Your task to perform on an android device: open app "Flipkart Online Shopping App" Image 0: 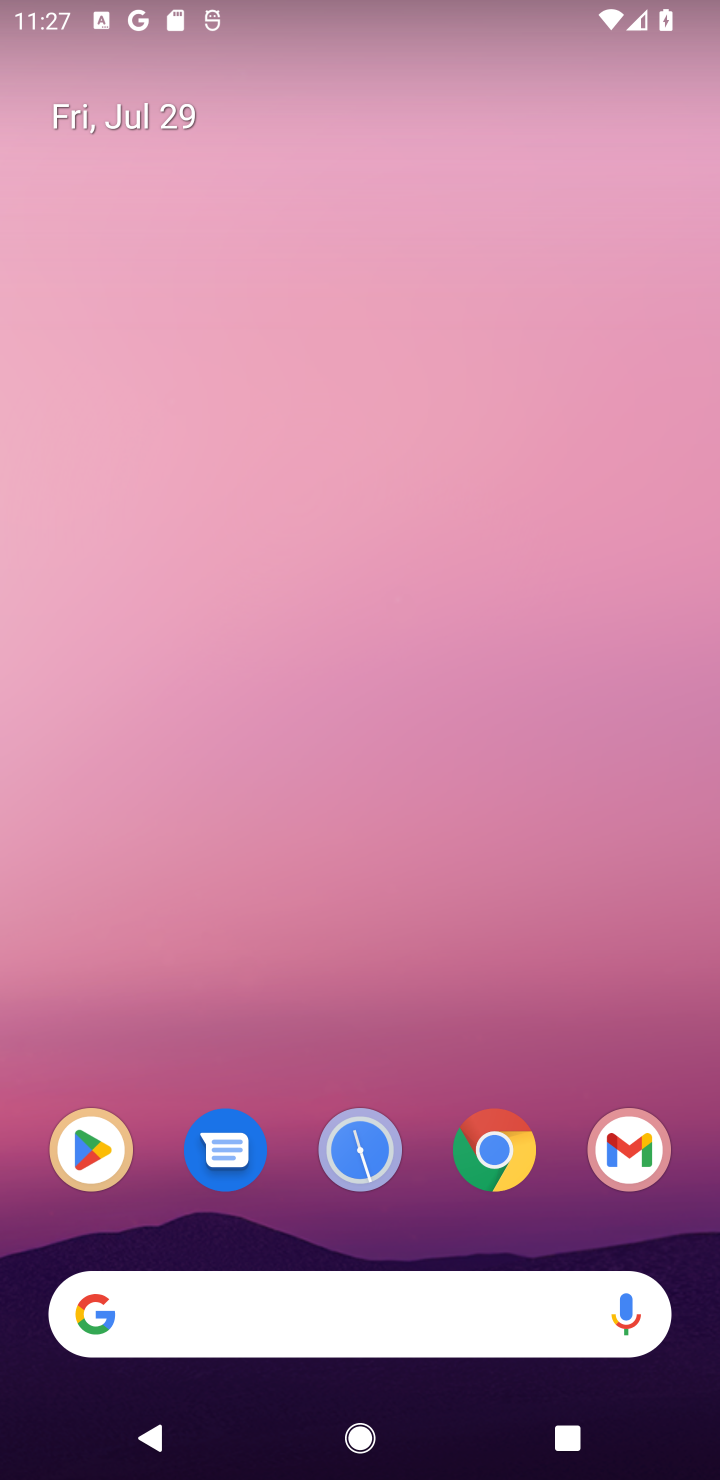
Step 0: click (112, 1133)
Your task to perform on an android device: open app "Flipkart Online Shopping App" Image 1: 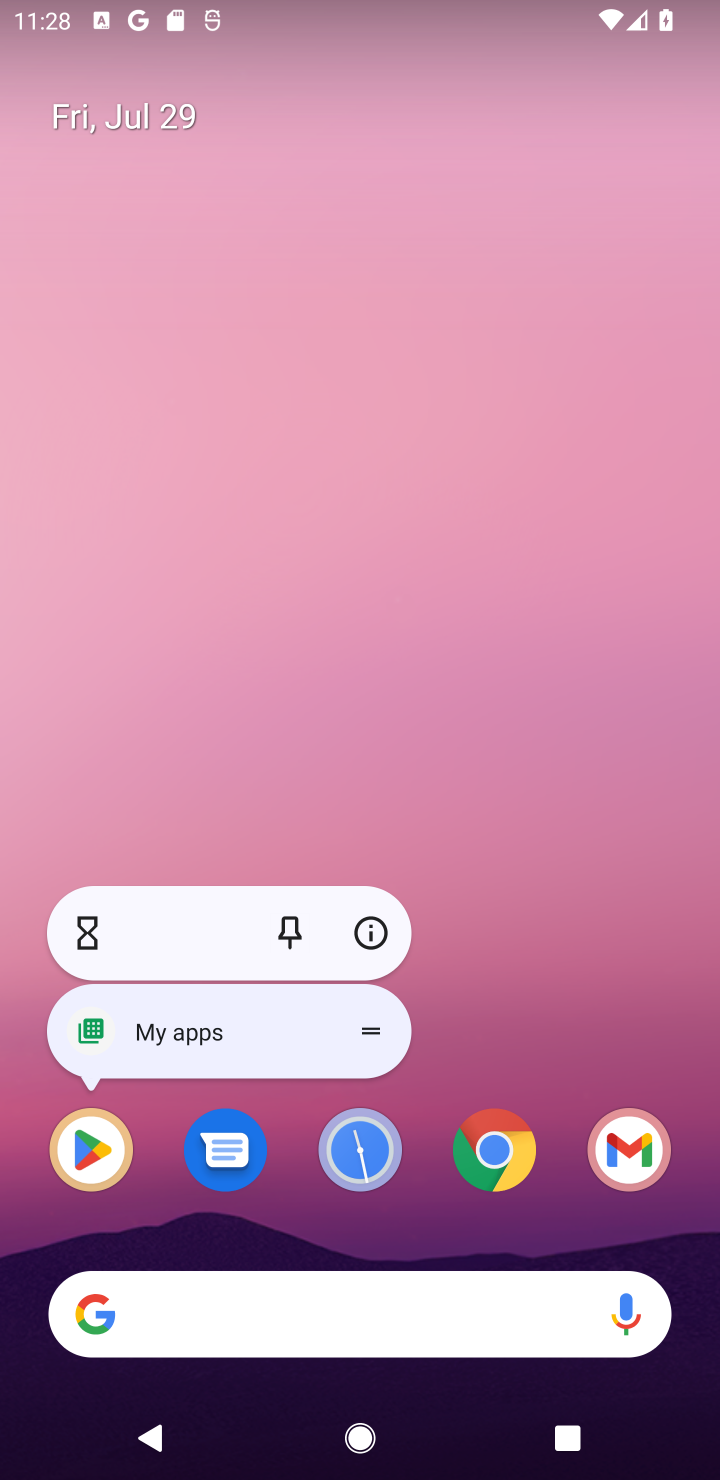
Step 1: click (82, 1157)
Your task to perform on an android device: open app "Flipkart Online Shopping App" Image 2: 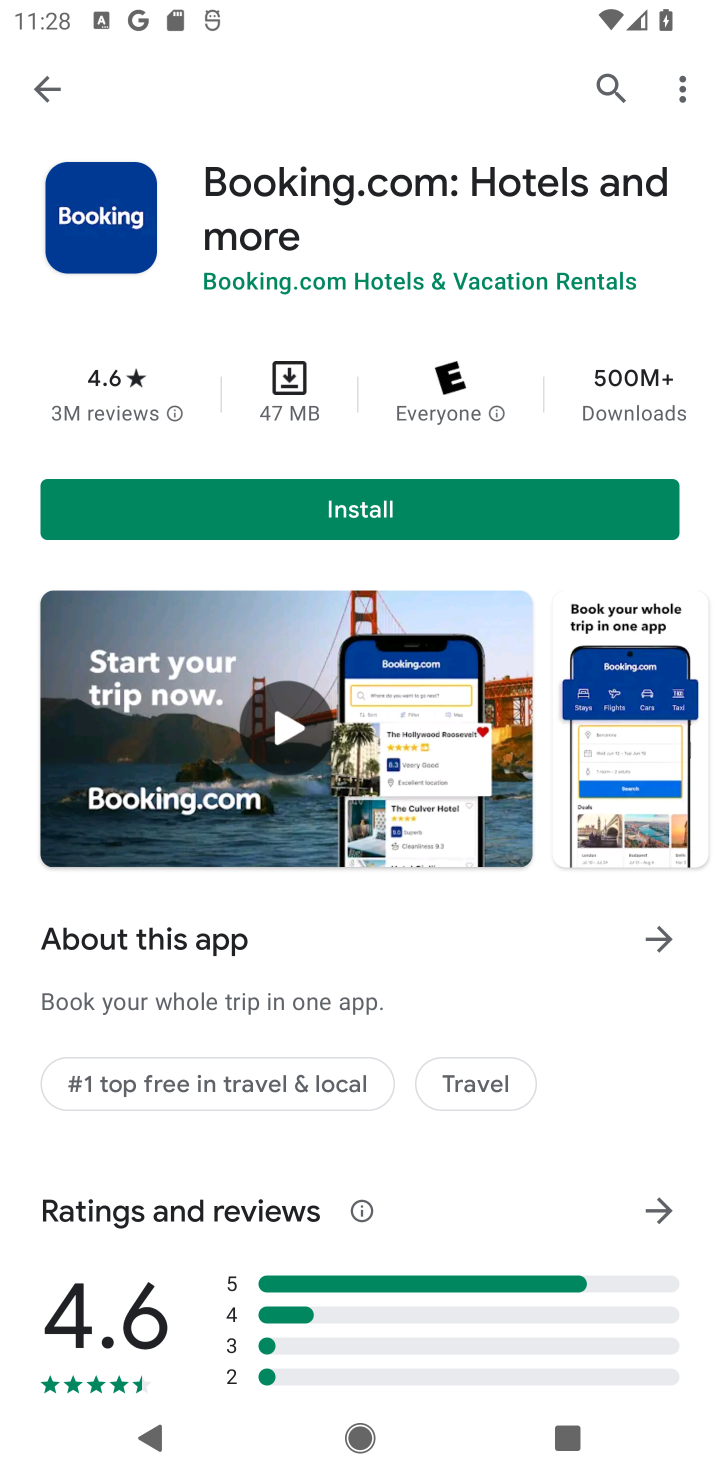
Step 2: click (595, 89)
Your task to perform on an android device: open app "Flipkart Online Shopping App" Image 3: 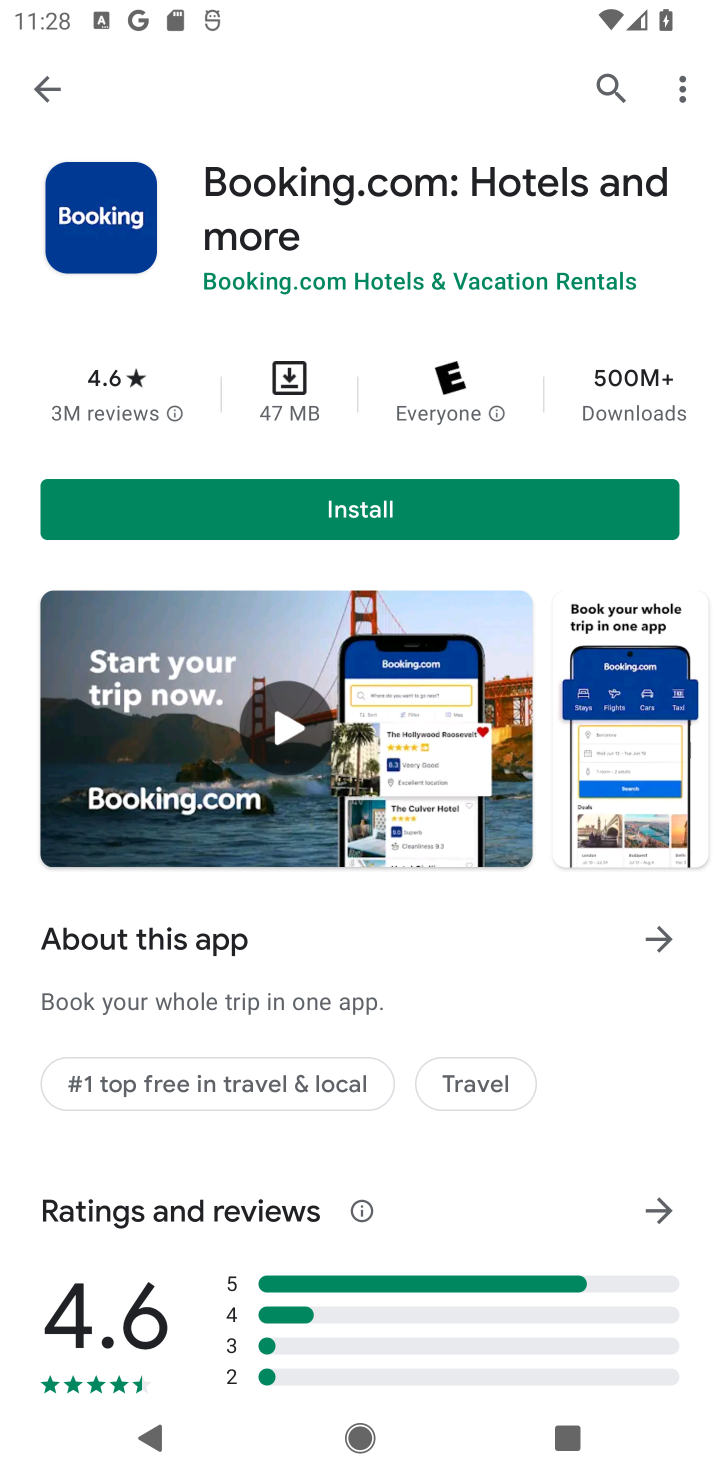
Step 3: click (618, 69)
Your task to perform on an android device: open app "Flipkart Online Shopping App" Image 4: 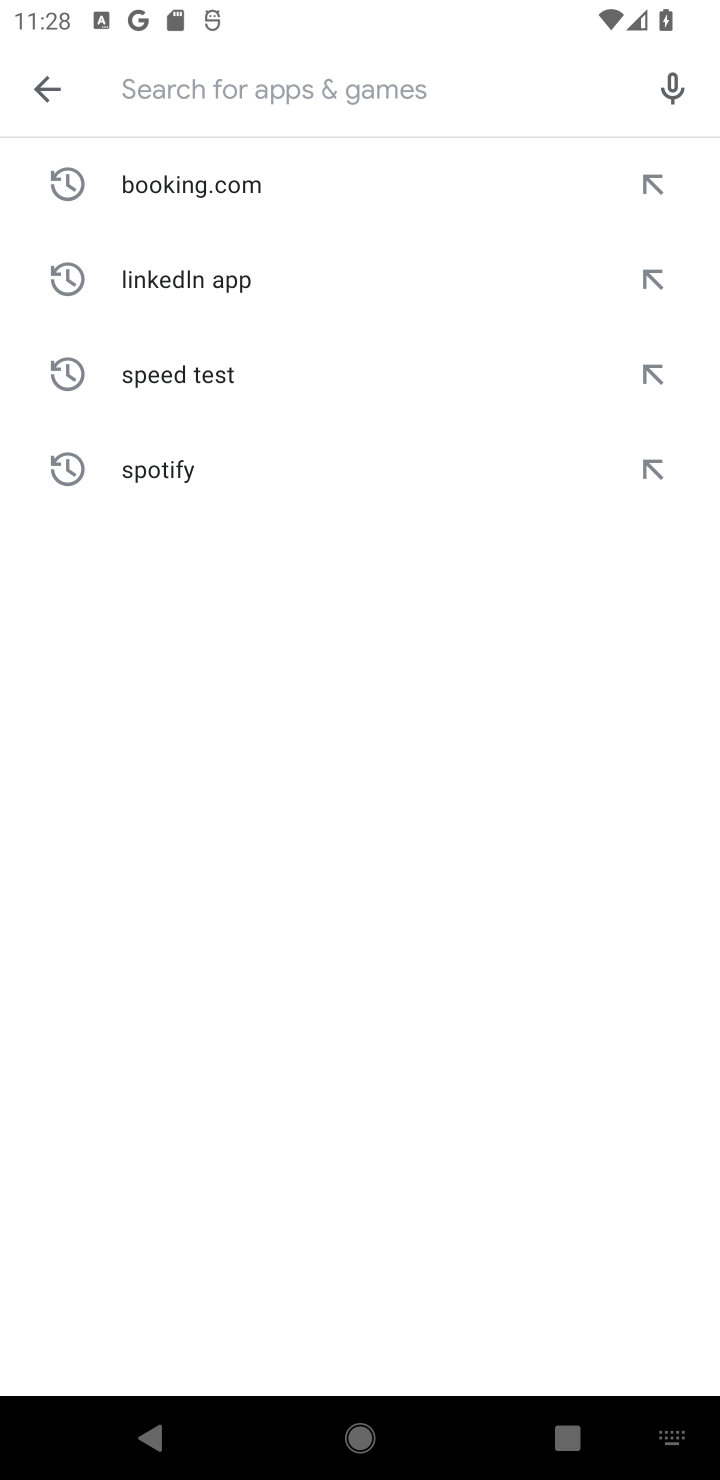
Step 4: click (241, 94)
Your task to perform on an android device: open app "Flipkart Online Shopping App" Image 5: 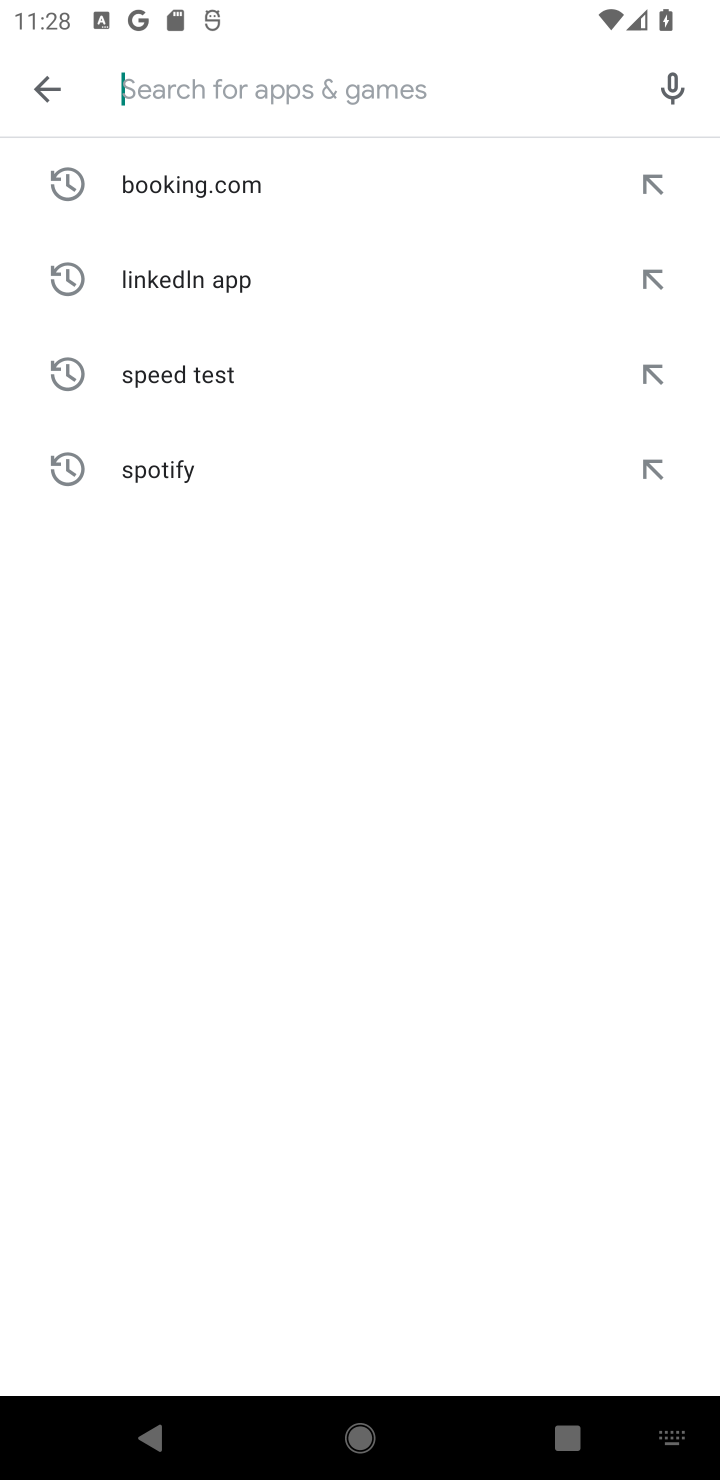
Step 5: type "flipkart"
Your task to perform on an android device: open app "Flipkart Online Shopping App" Image 6: 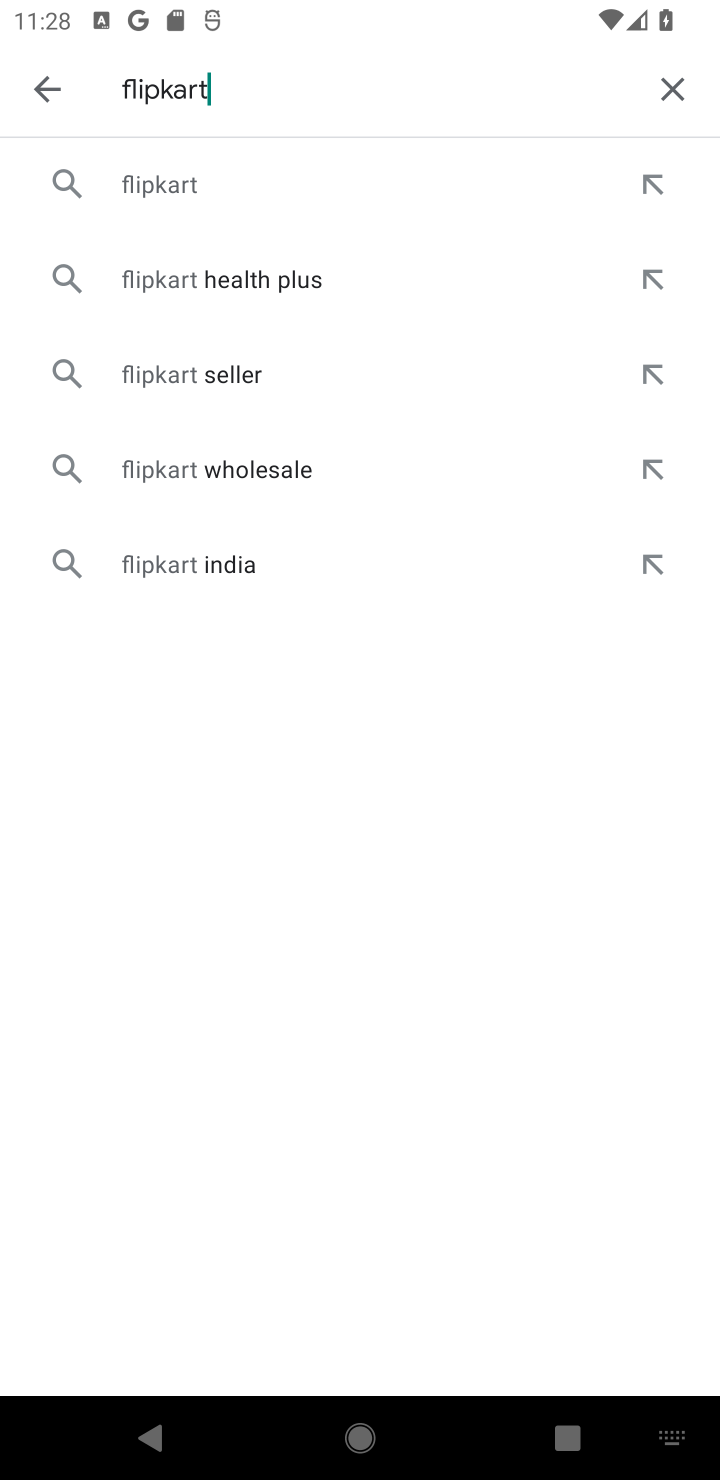
Step 6: click (254, 183)
Your task to perform on an android device: open app "Flipkart Online Shopping App" Image 7: 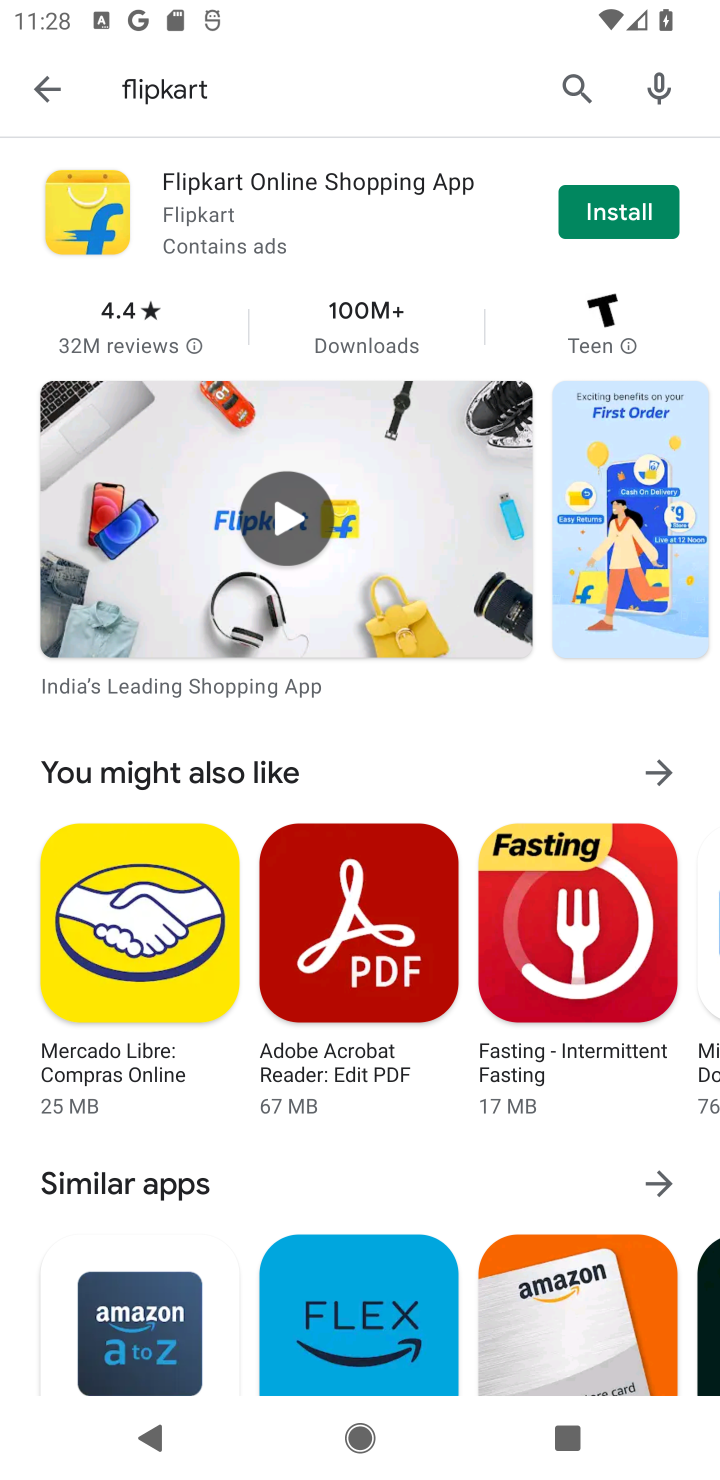
Step 7: task complete